Your task to perform on an android device: turn off smart reply in the gmail app Image 0: 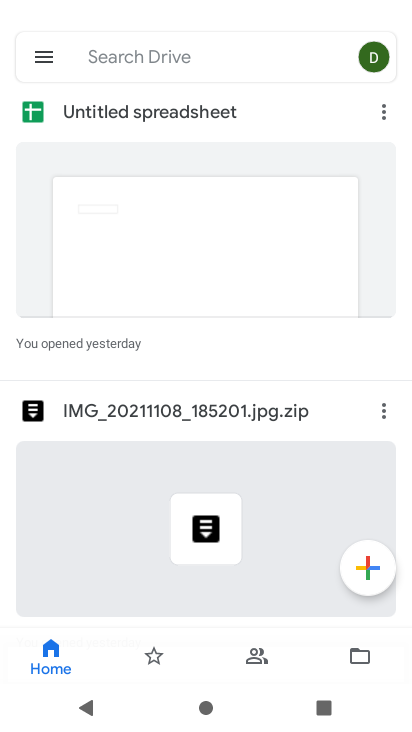
Step 0: press home button
Your task to perform on an android device: turn off smart reply in the gmail app Image 1: 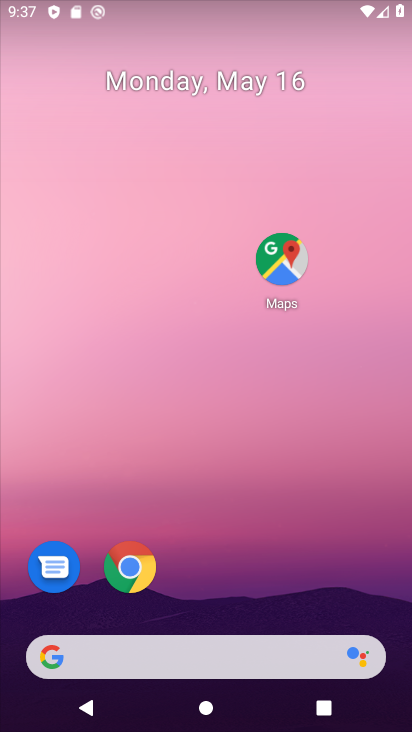
Step 1: drag from (236, 487) to (294, 58)
Your task to perform on an android device: turn off smart reply in the gmail app Image 2: 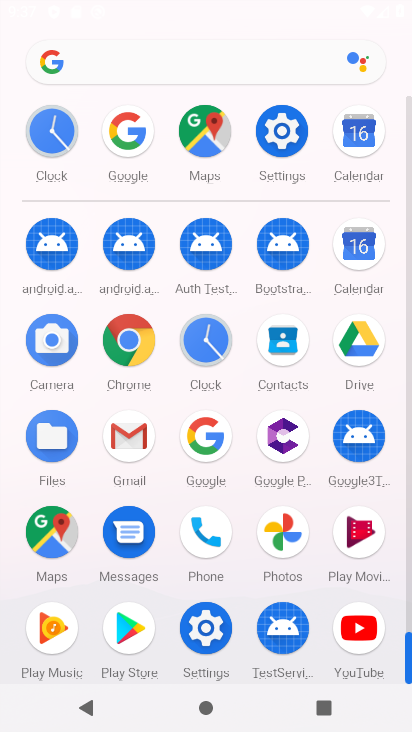
Step 2: click (129, 432)
Your task to perform on an android device: turn off smart reply in the gmail app Image 3: 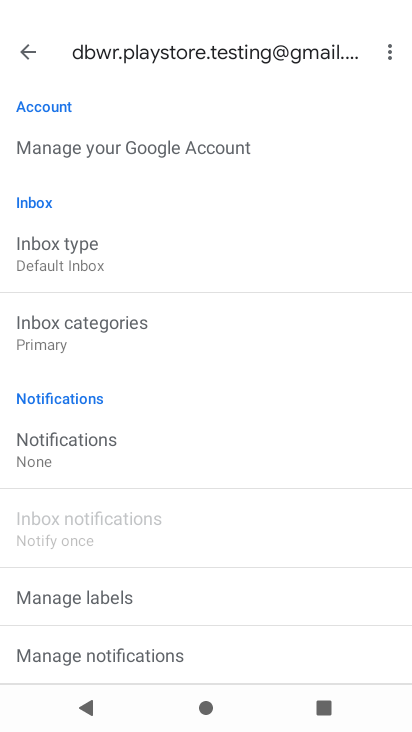
Step 3: task complete